Your task to perform on an android device: Open ESPN.com Image 0: 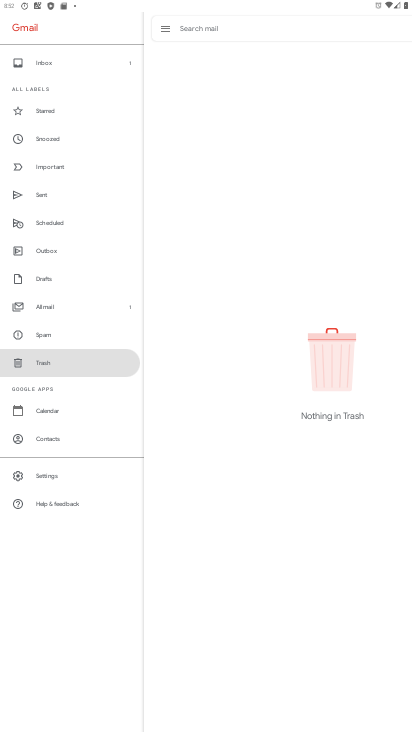
Step 0: press home button
Your task to perform on an android device: Open ESPN.com Image 1: 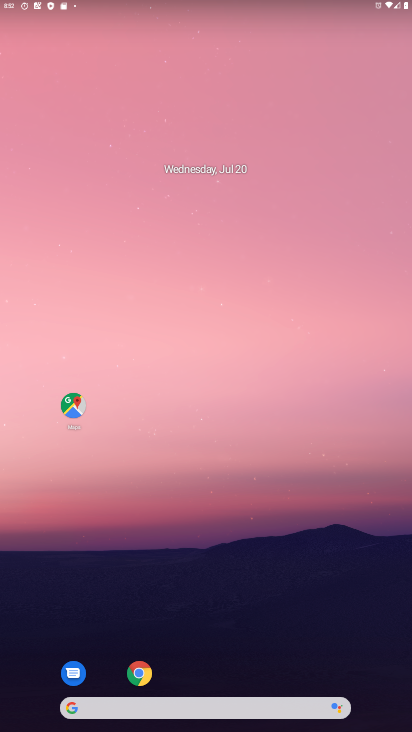
Step 1: drag from (193, 689) to (186, 168)
Your task to perform on an android device: Open ESPN.com Image 2: 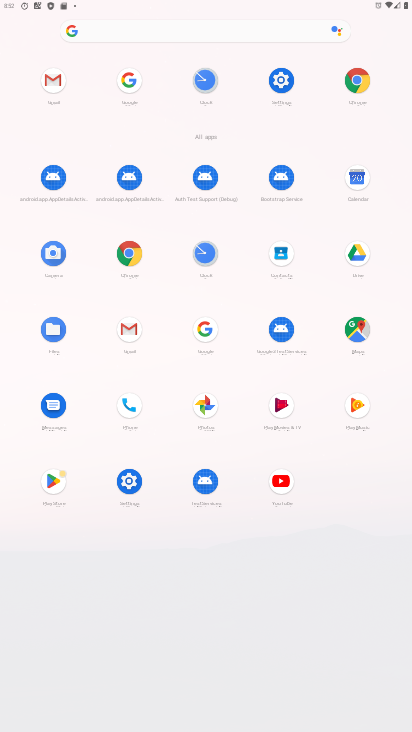
Step 2: click (131, 83)
Your task to perform on an android device: Open ESPN.com Image 3: 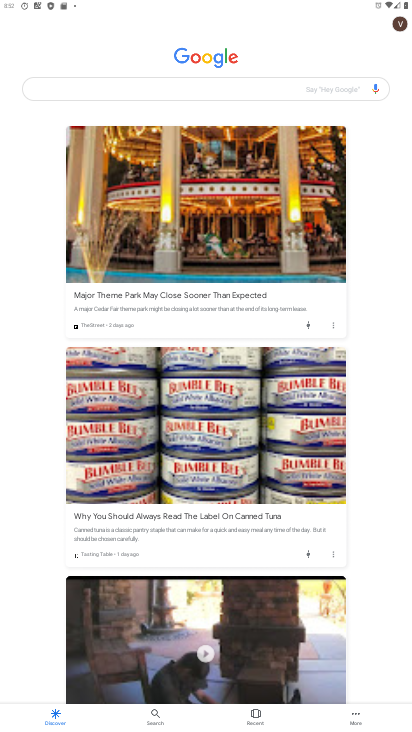
Step 3: click (172, 87)
Your task to perform on an android device: Open ESPN.com Image 4: 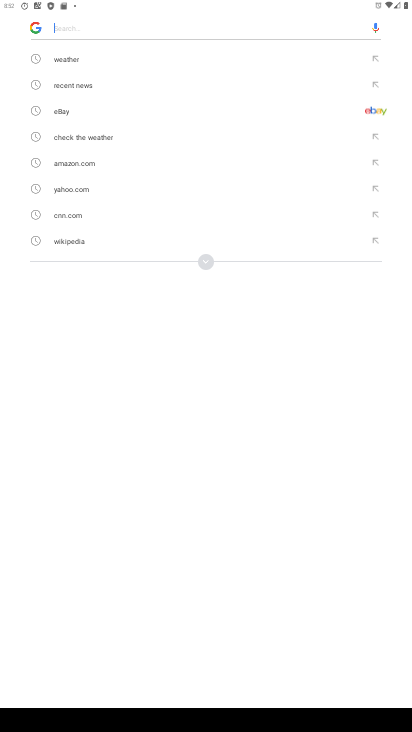
Step 4: type "espn.com"
Your task to perform on an android device: Open ESPN.com Image 5: 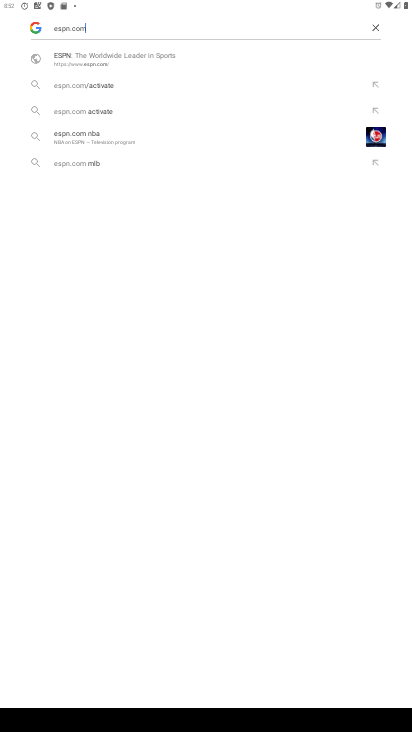
Step 5: click (146, 65)
Your task to perform on an android device: Open ESPN.com Image 6: 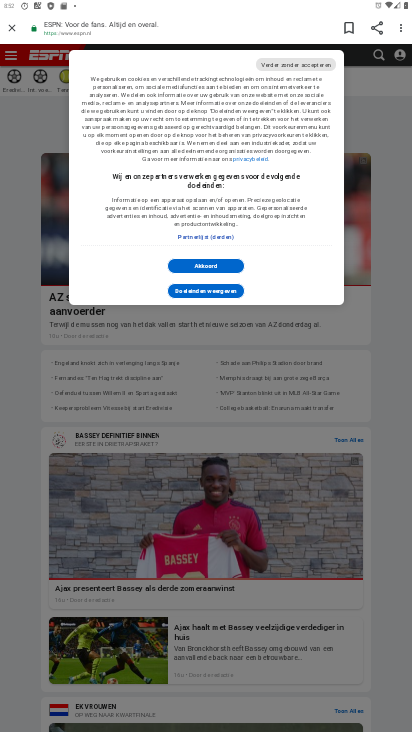
Step 6: task complete